Your task to perform on an android device: change text size in settings app Image 0: 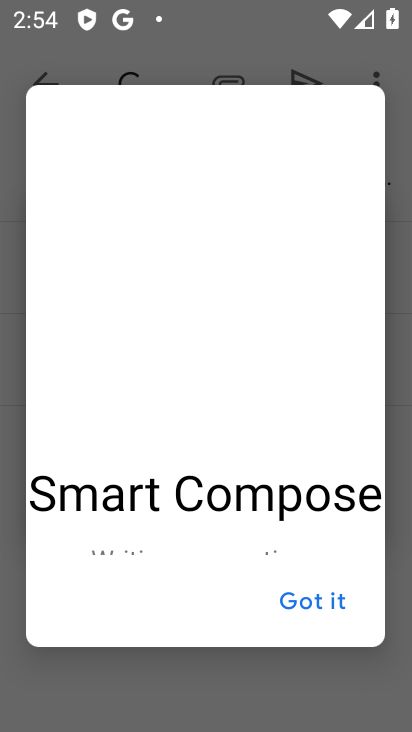
Step 0: press home button
Your task to perform on an android device: change text size in settings app Image 1: 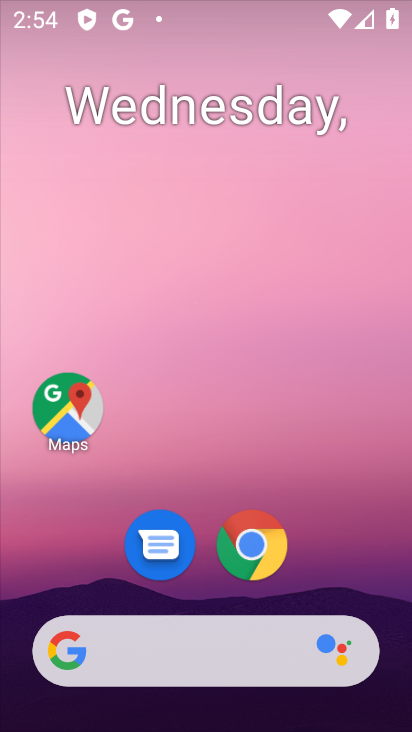
Step 1: drag from (186, 615) to (241, 156)
Your task to perform on an android device: change text size in settings app Image 2: 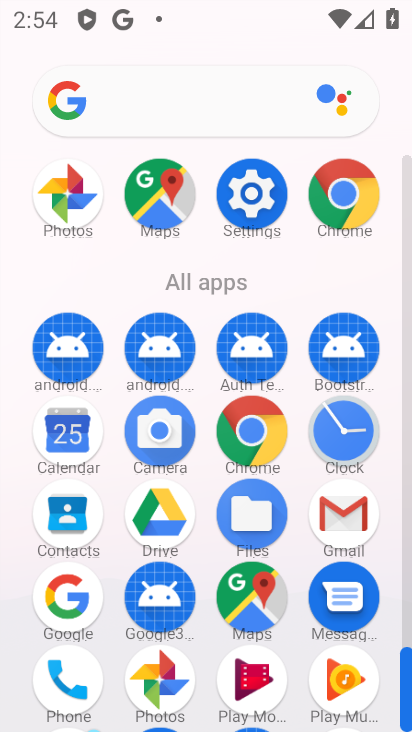
Step 2: drag from (121, 605) to (180, 354)
Your task to perform on an android device: change text size in settings app Image 3: 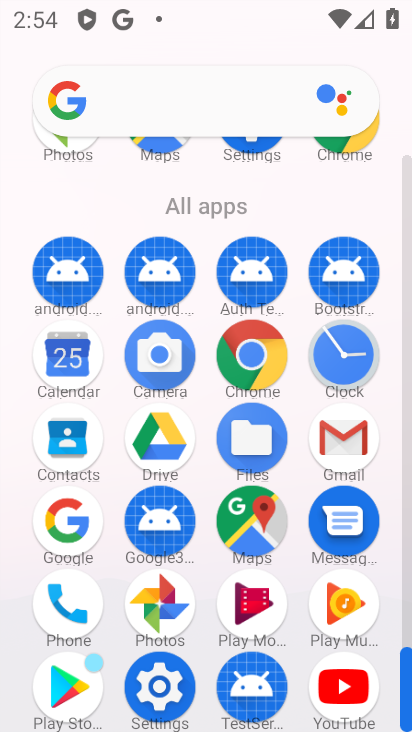
Step 3: click (169, 703)
Your task to perform on an android device: change text size in settings app Image 4: 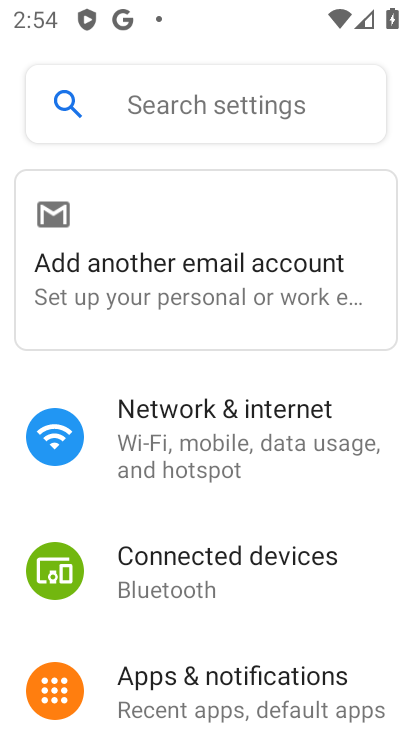
Step 4: drag from (234, 651) to (296, 352)
Your task to perform on an android device: change text size in settings app Image 5: 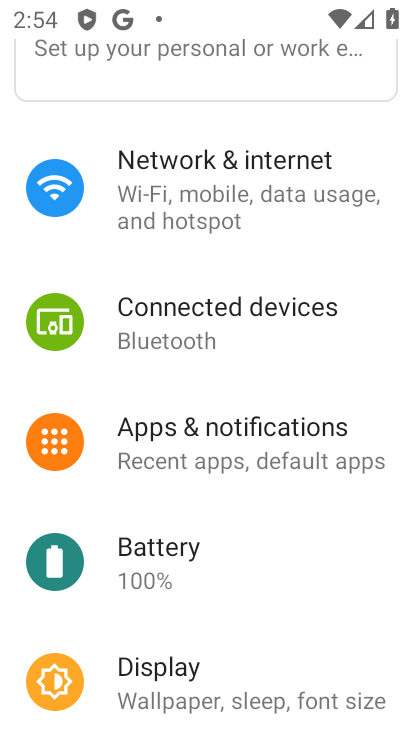
Step 5: click (201, 664)
Your task to perform on an android device: change text size in settings app Image 6: 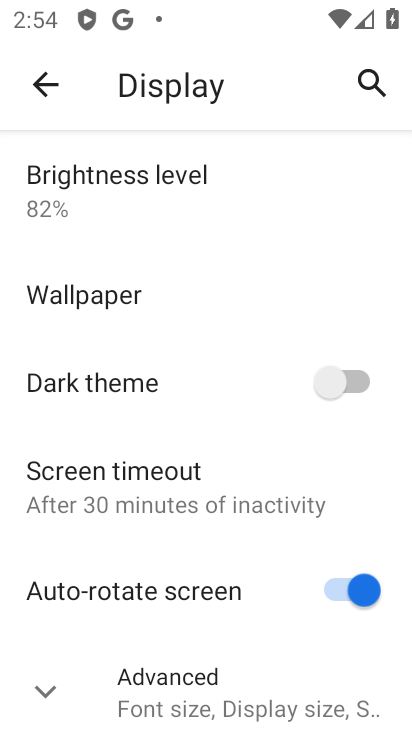
Step 6: click (195, 695)
Your task to perform on an android device: change text size in settings app Image 7: 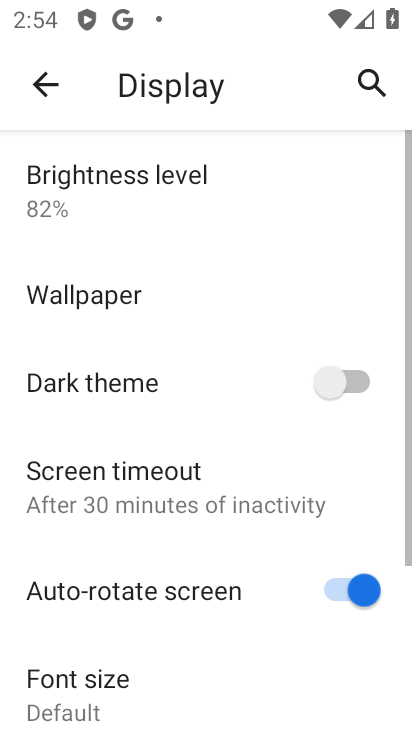
Step 7: drag from (202, 687) to (272, 376)
Your task to perform on an android device: change text size in settings app Image 8: 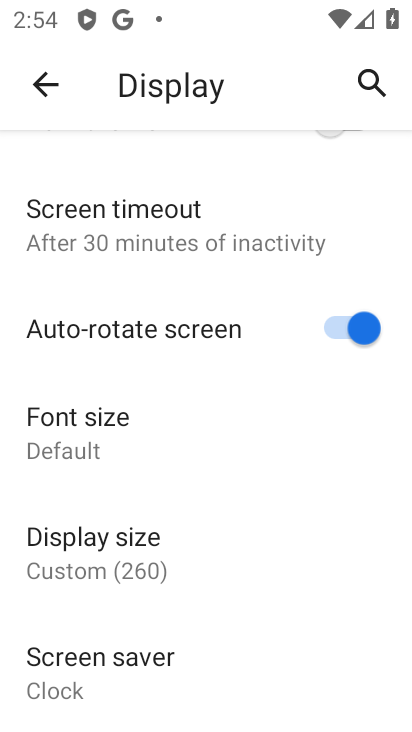
Step 8: click (148, 442)
Your task to perform on an android device: change text size in settings app Image 9: 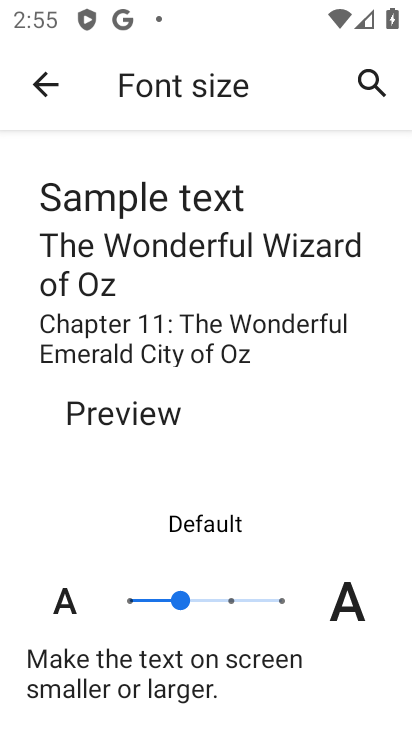
Step 9: click (222, 601)
Your task to perform on an android device: change text size in settings app Image 10: 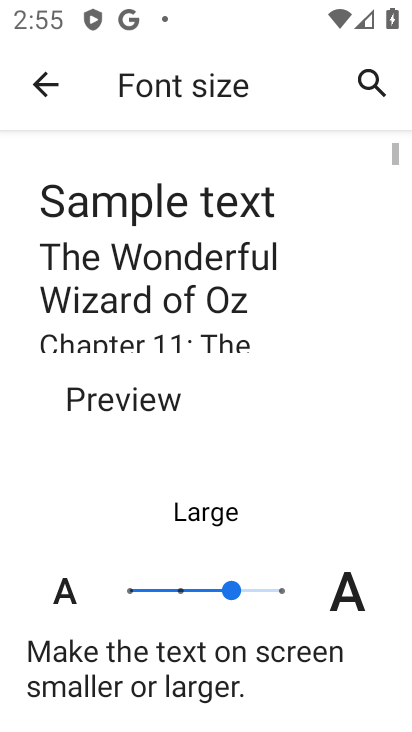
Step 10: task complete